Your task to perform on an android device: turn off notifications in google photos Image 0: 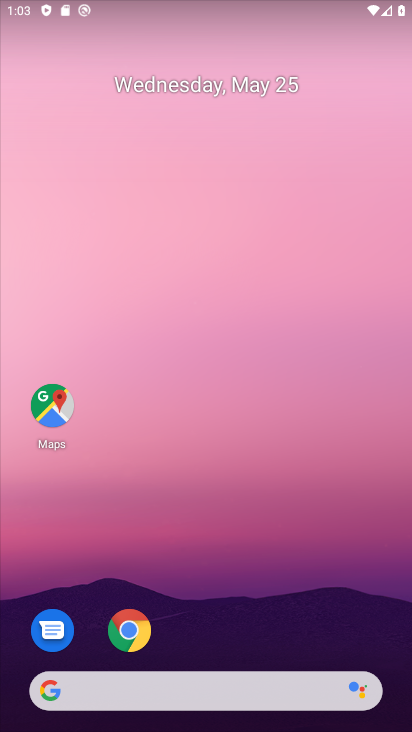
Step 0: drag from (281, 575) to (181, 174)
Your task to perform on an android device: turn off notifications in google photos Image 1: 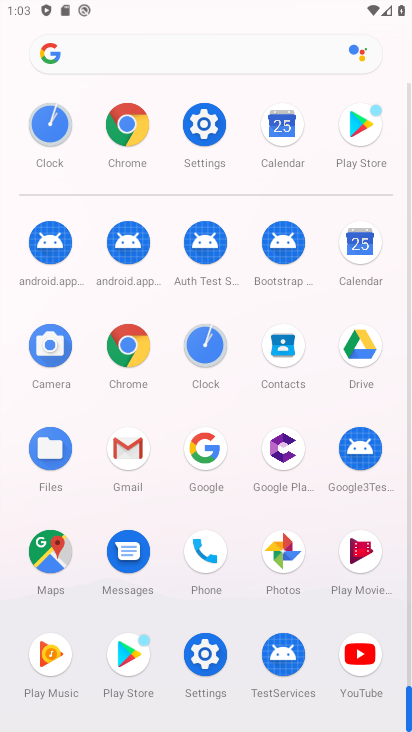
Step 1: click (285, 554)
Your task to perform on an android device: turn off notifications in google photos Image 2: 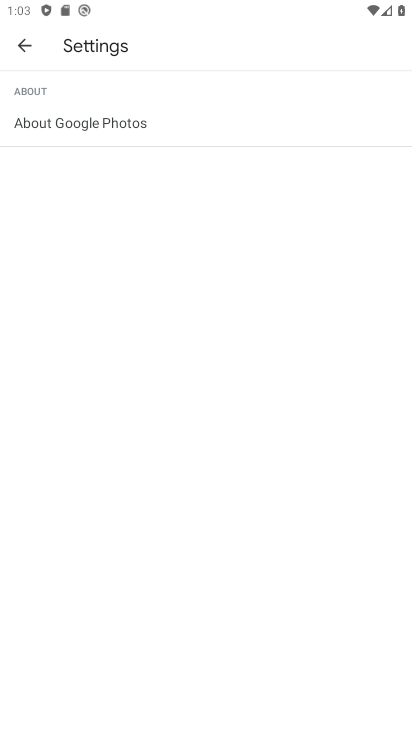
Step 2: click (285, 554)
Your task to perform on an android device: turn off notifications in google photos Image 3: 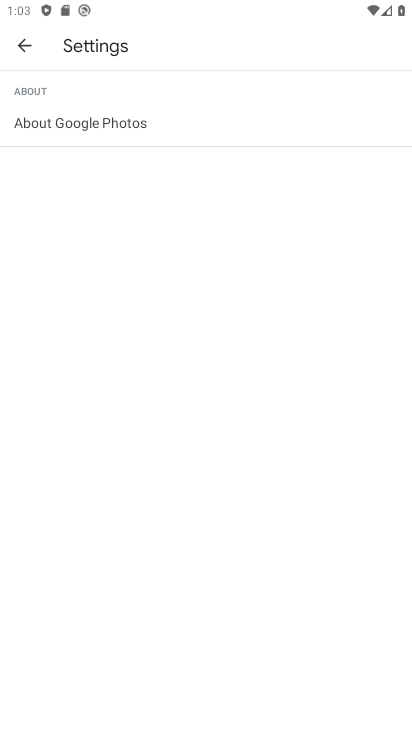
Step 3: click (285, 554)
Your task to perform on an android device: turn off notifications in google photos Image 4: 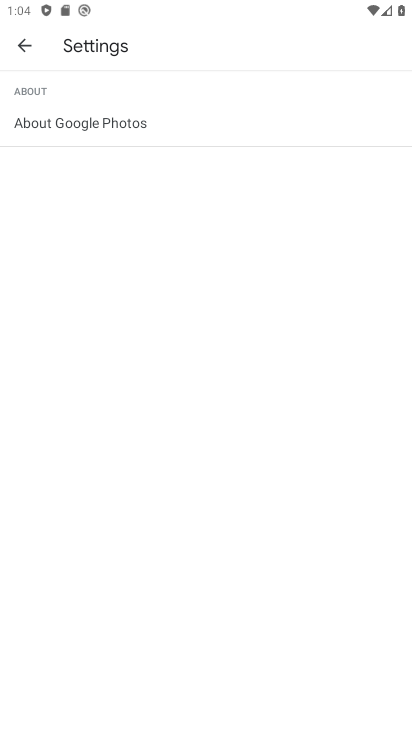
Step 4: click (25, 37)
Your task to perform on an android device: turn off notifications in google photos Image 5: 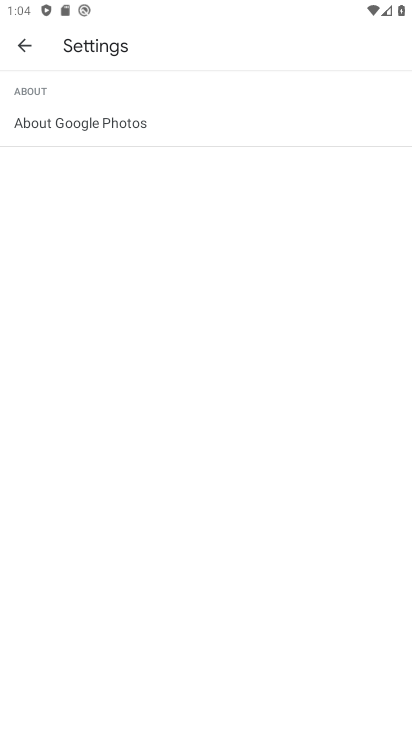
Step 5: click (24, 39)
Your task to perform on an android device: turn off notifications in google photos Image 6: 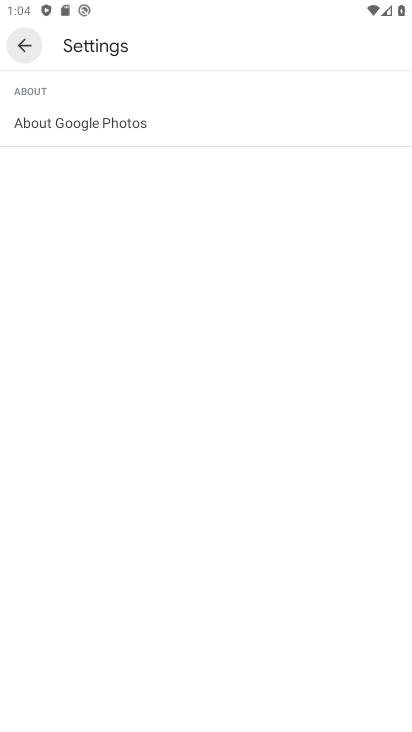
Step 6: click (24, 40)
Your task to perform on an android device: turn off notifications in google photos Image 7: 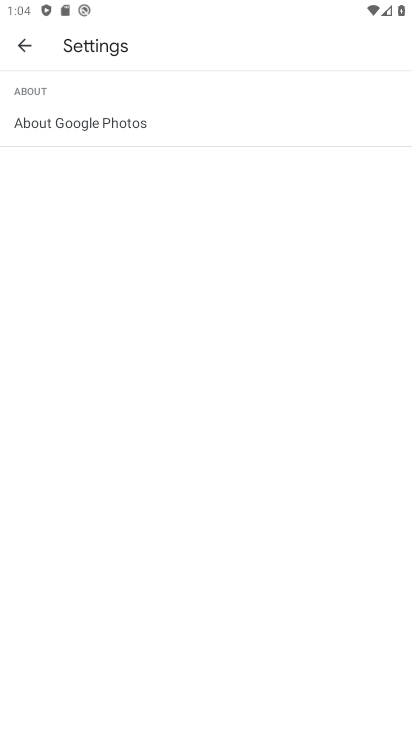
Step 7: click (24, 40)
Your task to perform on an android device: turn off notifications in google photos Image 8: 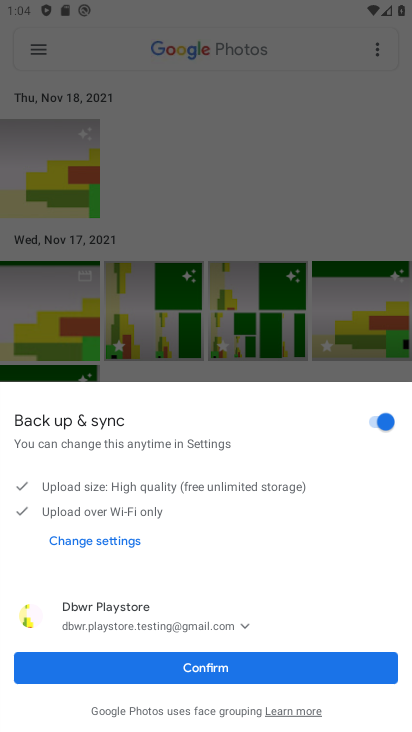
Step 8: click (242, 672)
Your task to perform on an android device: turn off notifications in google photos Image 9: 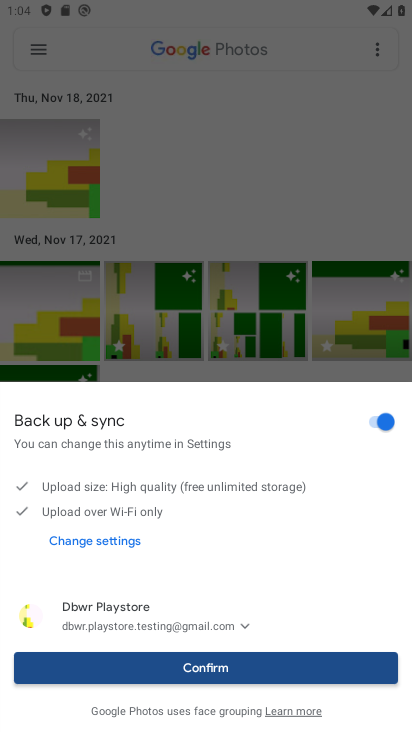
Step 9: click (242, 672)
Your task to perform on an android device: turn off notifications in google photos Image 10: 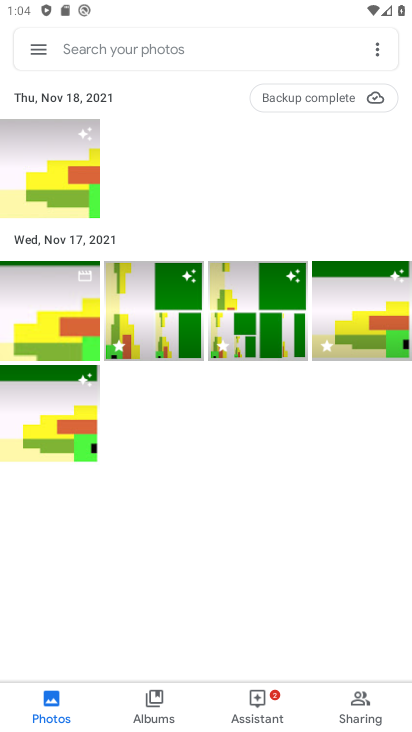
Step 10: press back button
Your task to perform on an android device: turn off notifications in google photos Image 11: 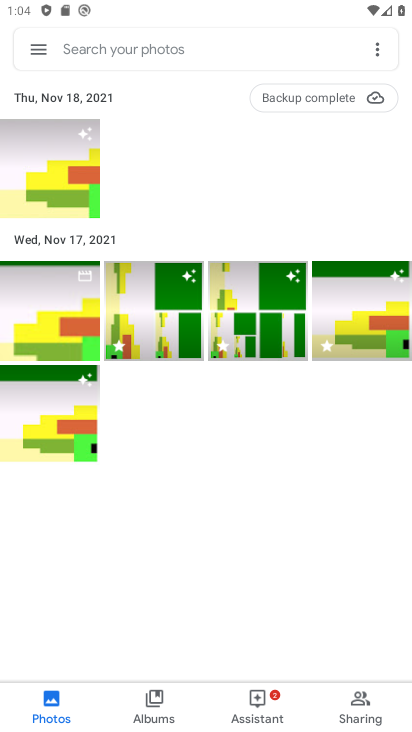
Step 11: press back button
Your task to perform on an android device: turn off notifications in google photos Image 12: 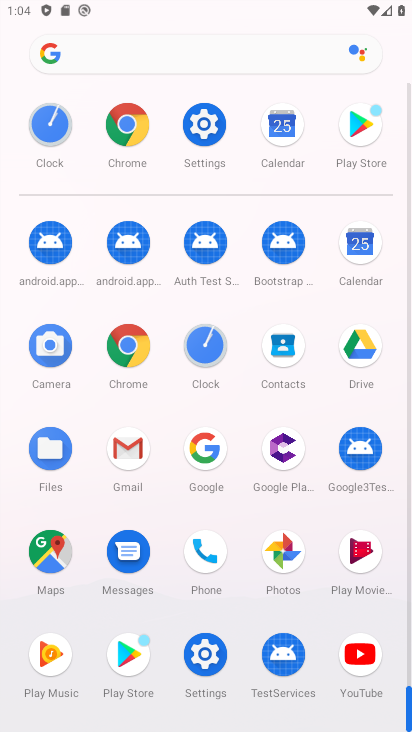
Step 12: press back button
Your task to perform on an android device: turn off notifications in google photos Image 13: 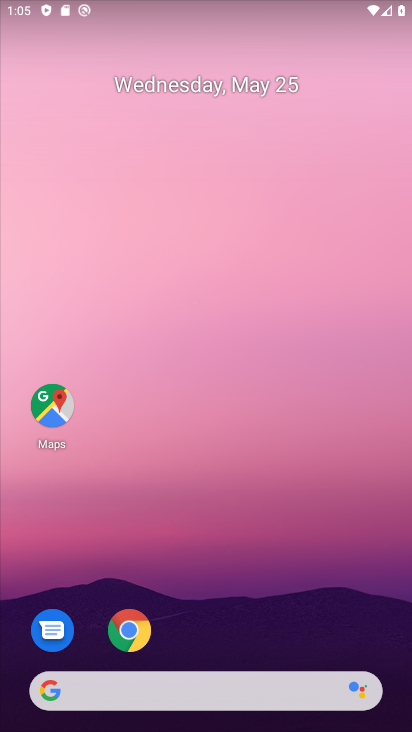
Step 13: drag from (266, 622) to (175, 0)
Your task to perform on an android device: turn off notifications in google photos Image 14: 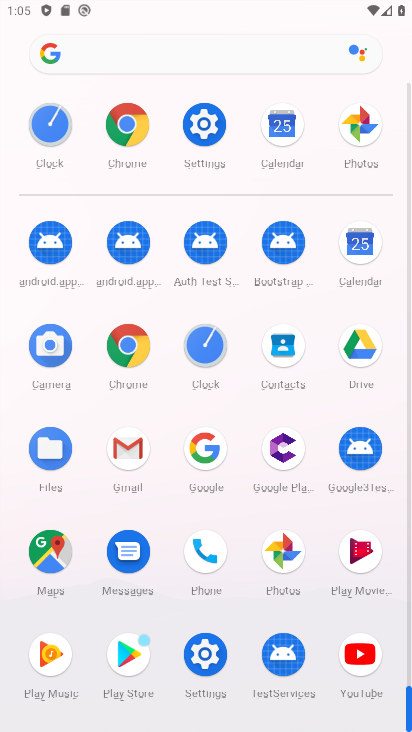
Step 14: click (273, 547)
Your task to perform on an android device: turn off notifications in google photos Image 15: 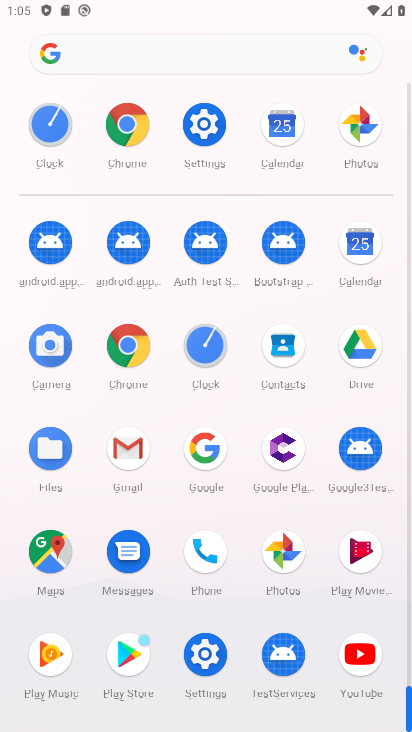
Step 15: click (274, 547)
Your task to perform on an android device: turn off notifications in google photos Image 16: 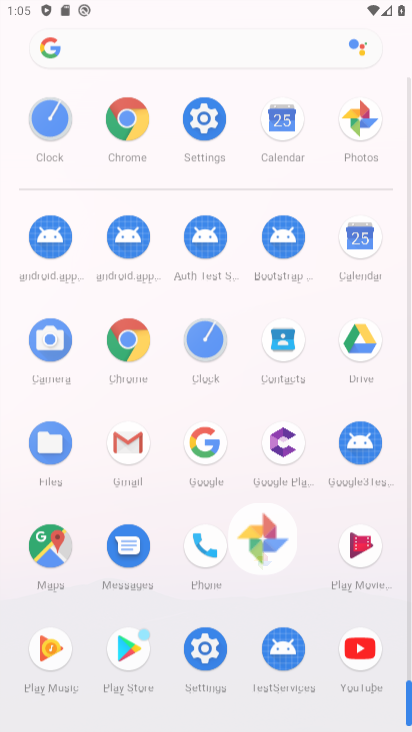
Step 16: click (275, 551)
Your task to perform on an android device: turn off notifications in google photos Image 17: 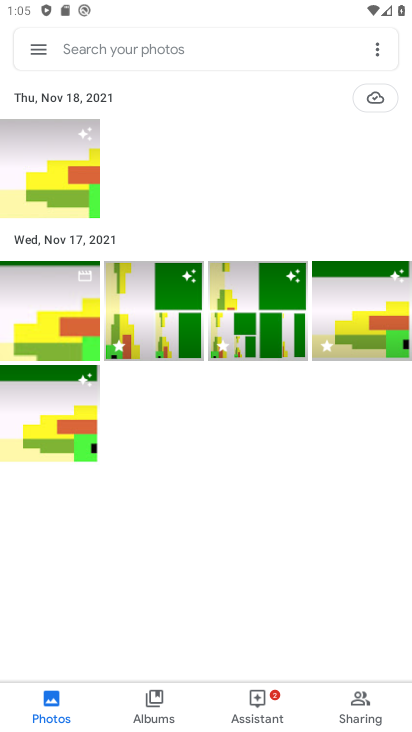
Step 17: click (35, 59)
Your task to perform on an android device: turn off notifications in google photos Image 18: 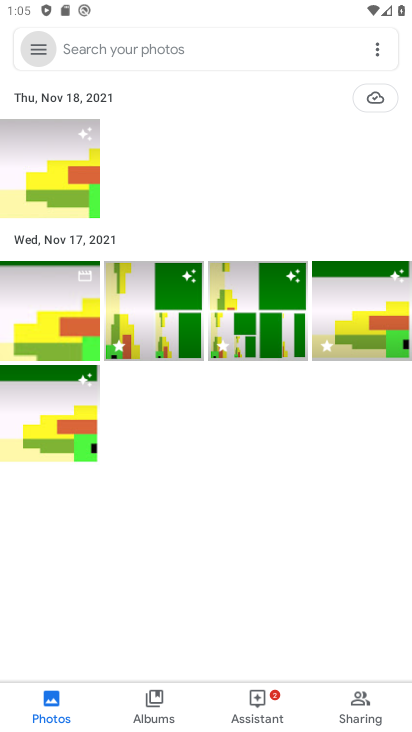
Step 18: click (37, 59)
Your task to perform on an android device: turn off notifications in google photos Image 19: 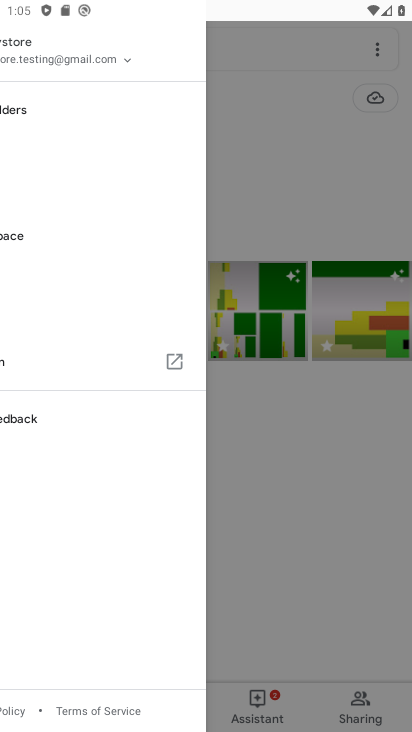
Step 19: drag from (38, 58) to (58, 164)
Your task to perform on an android device: turn off notifications in google photos Image 20: 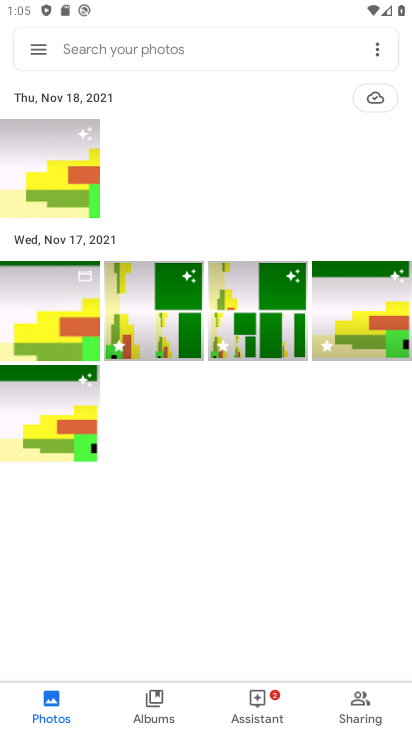
Step 20: click (47, 42)
Your task to perform on an android device: turn off notifications in google photos Image 21: 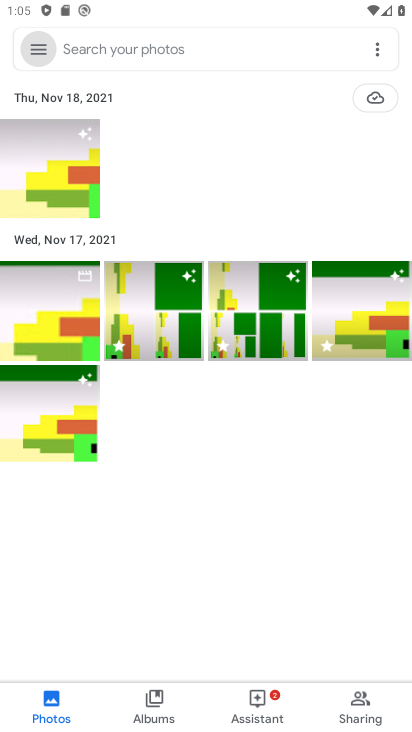
Step 21: click (42, 47)
Your task to perform on an android device: turn off notifications in google photos Image 22: 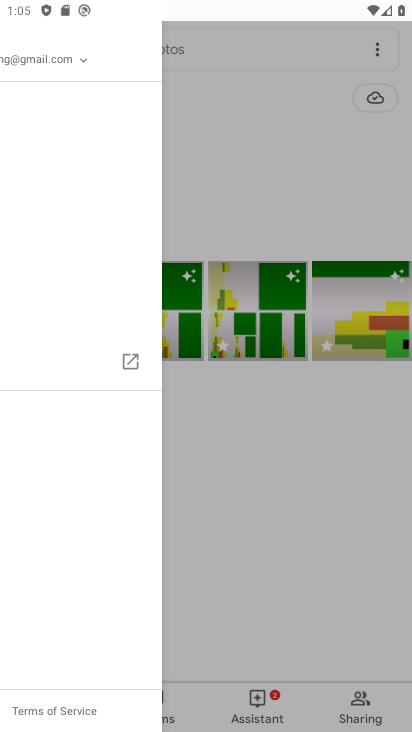
Step 22: drag from (42, 47) to (27, 276)
Your task to perform on an android device: turn off notifications in google photos Image 23: 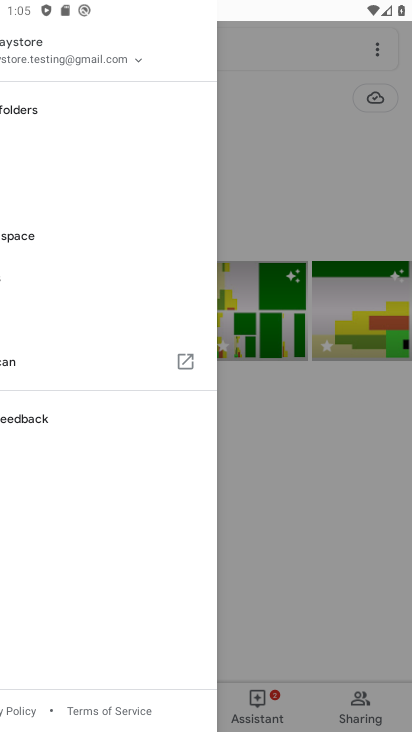
Step 23: click (27, 276)
Your task to perform on an android device: turn off notifications in google photos Image 24: 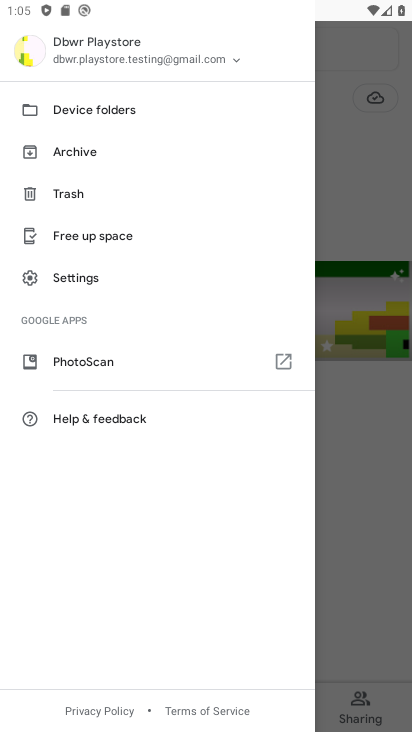
Step 24: click (22, 283)
Your task to perform on an android device: turn off notifications in google photos Image 25: 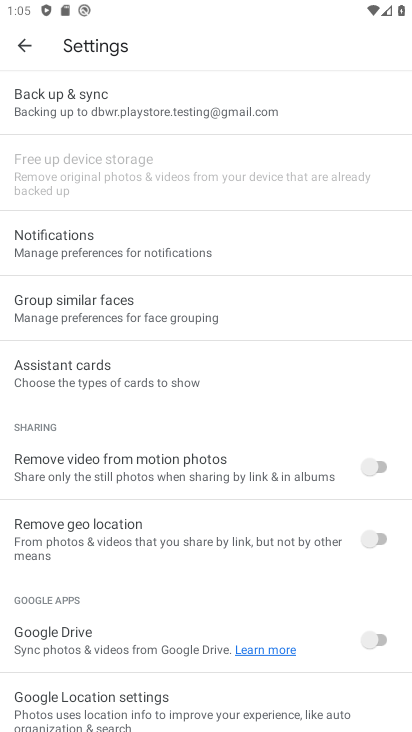
Step 25: click (53, 239)
Your task to perform on an android device: turn off notifications in google photos Image 26: 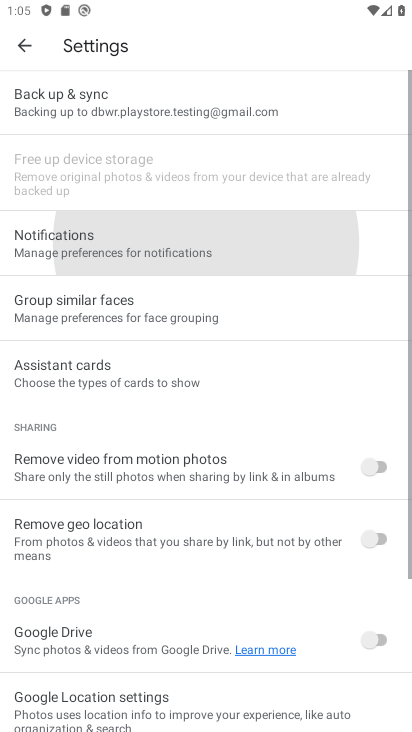
Step 26: click (53, 239)
Your task to perform on an android device: turn off notifications in google photos Image 27: 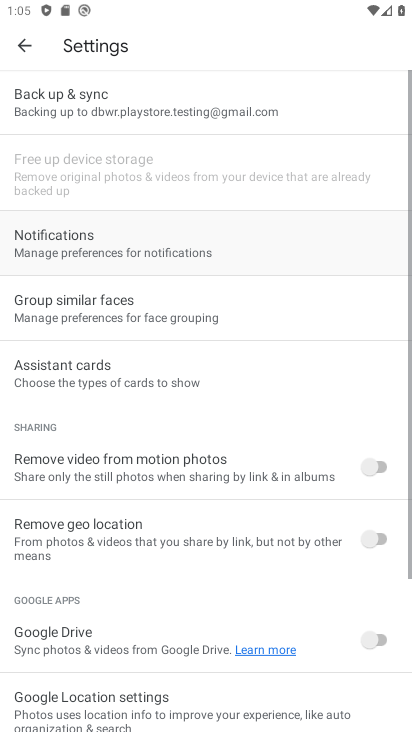
Step 27: click (50, 242)
Your task to perform on an android device: turn off notifications in google photos Image 28: 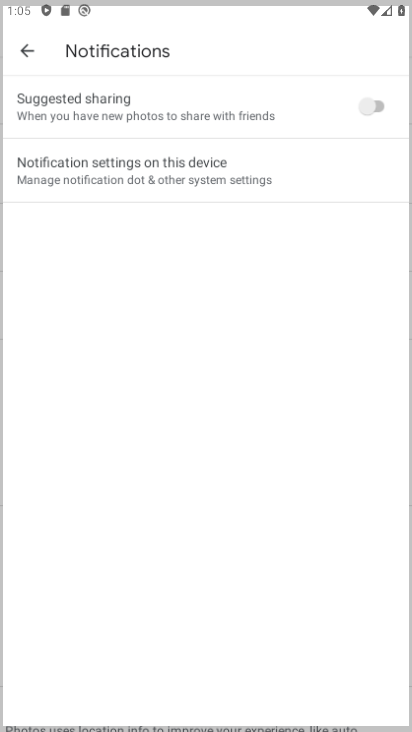
Step 28: click (51, 243)
Your task to perform on an android device: turn off notifications in google photos Image 29: 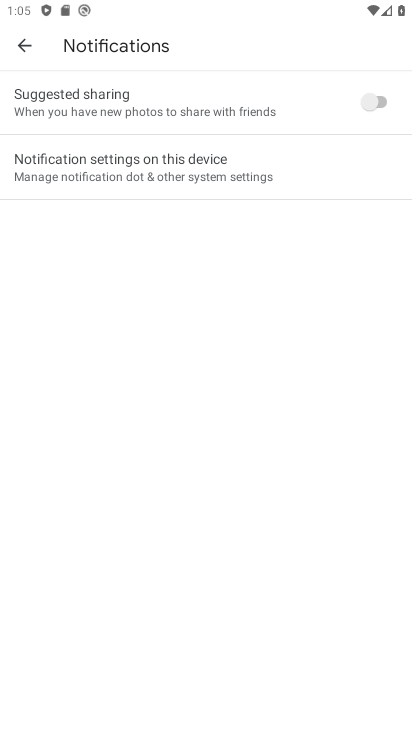
Step 29: click (187, 152)
Your task to perform on an android device: turn off notifications in google photos Image 30: 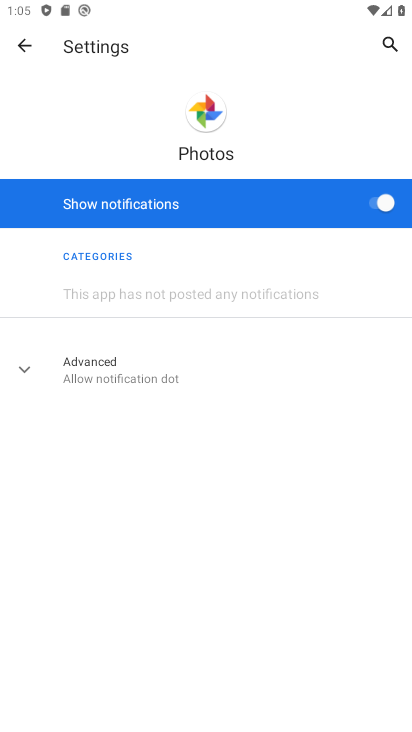
Step 30: click (381, 198)
Your task to perform on an android device: turn off notifications in google photos Image 31: 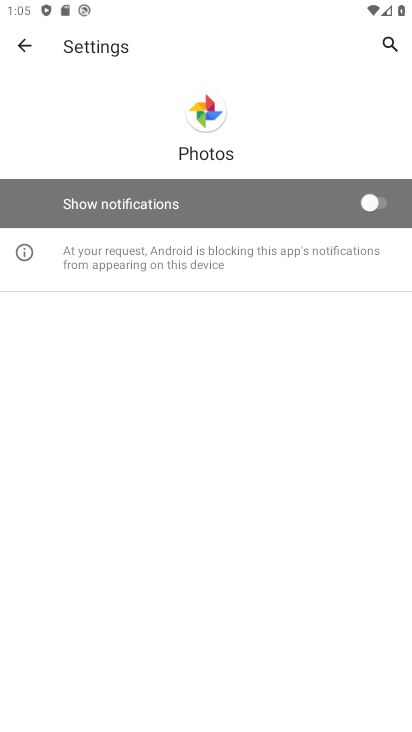
Step 31: task complete